Your task to perform on an android device: Go to Google Image 0: 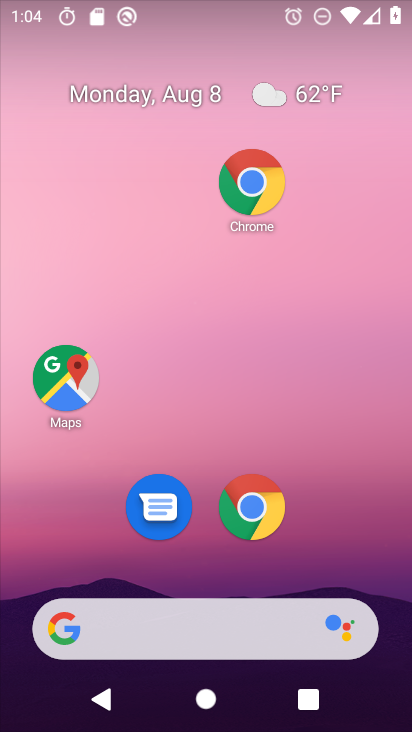
Step 0: drag from (357, 502) to (376, 112)
Your task to perform on an android device: Go to Google Image 1: 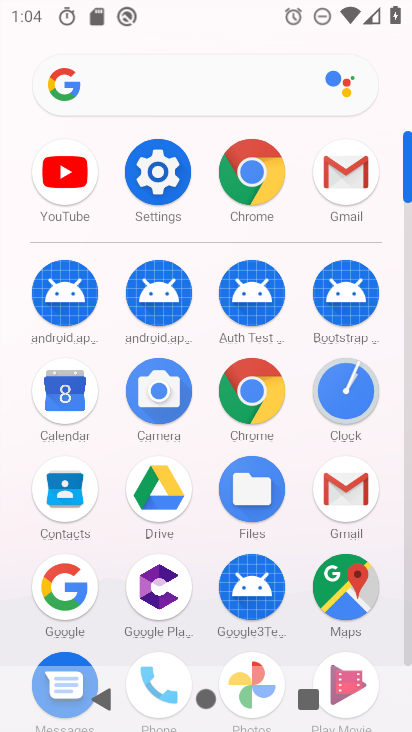
Step 1: drag from (298, 541) to (313, 157)
Your task to perform on an android device: Go to Google Image 2: 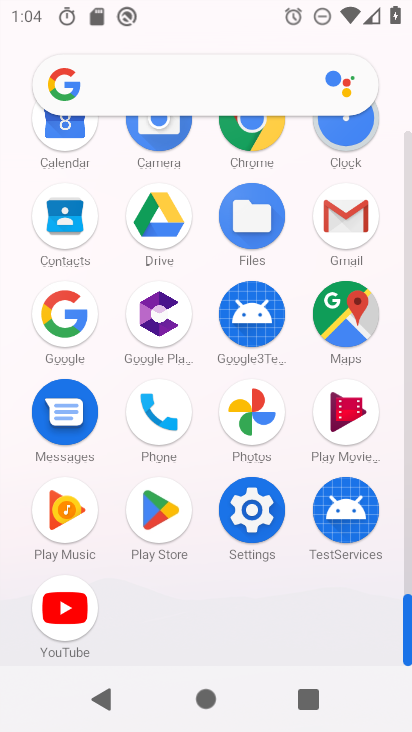
Step 2: click (61, 320)
Your task to perform on an android device: Go to Google Image 3: 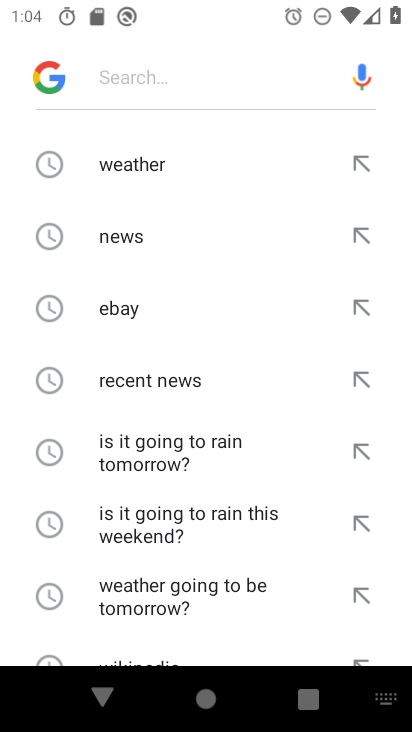
Step 3: task complete